Your task to perform on an android device: Open the stopwatch Image 0: 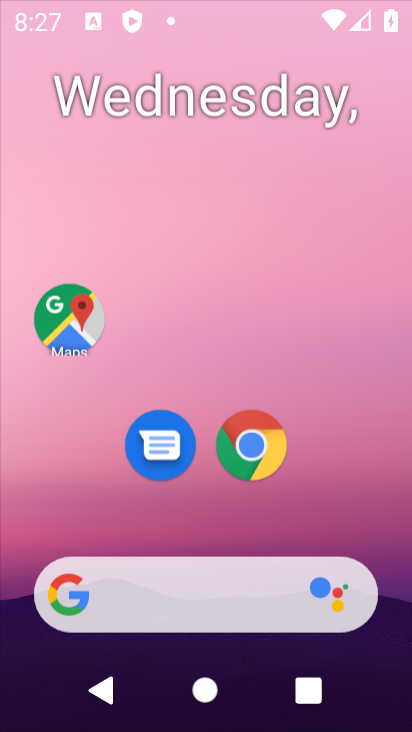
Step 0: drag from (333, 323) to (323, 2)
Your task to perform on an android device: Open the stopwatch Image 1: 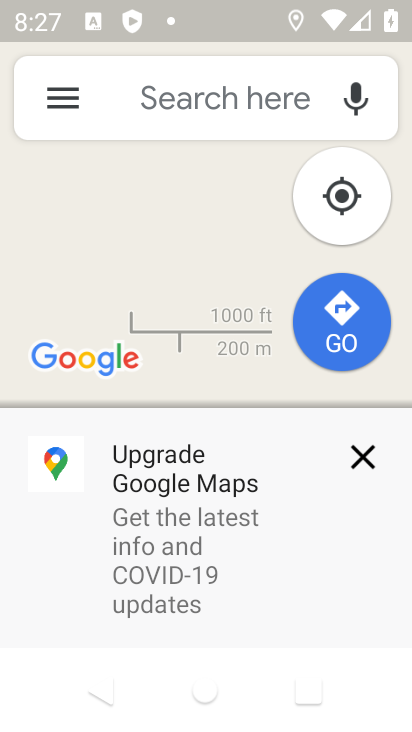
Step 1: press home button
Your task to perform on an android device: Open the stopwatch Image 2: 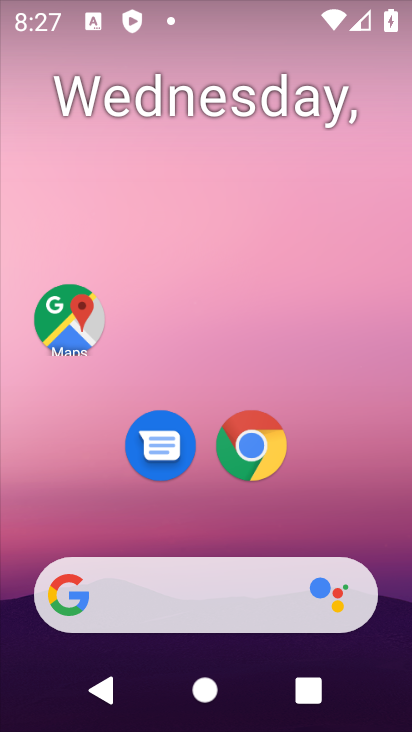
Step 2: drag from (352, 466) to (344, 42)
Your task to perform on an android device: Open the stopwatch Image 3: 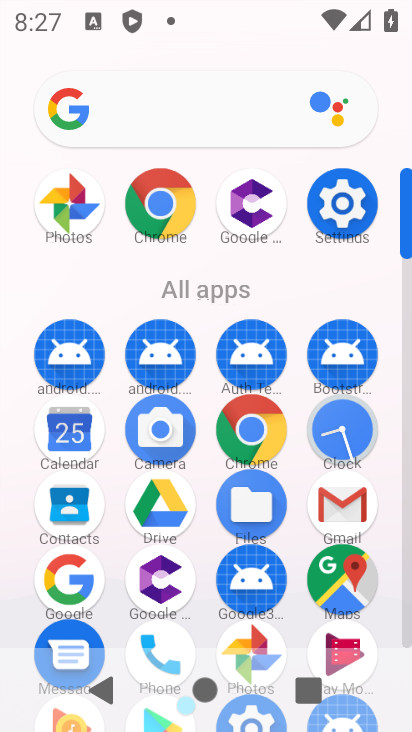
Step 3: click (336, 466)
Your task to perform on an android device: Open the stopwatch Image 4: 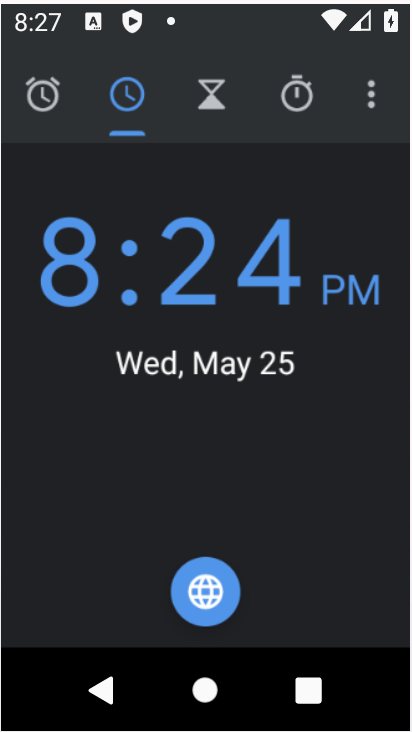
Step 4: click (334, 447)
Your task to perform on an android device: Open the stopwatch Image 5: 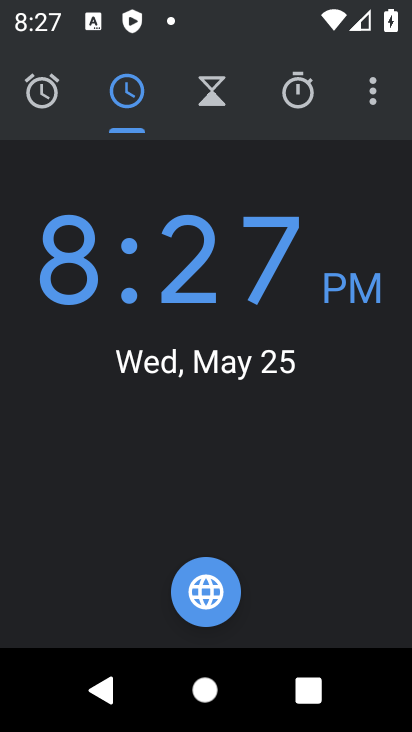
Step 5: click (286, 88)
Your task to perform on an android device: Open the stopwatch Image 6: 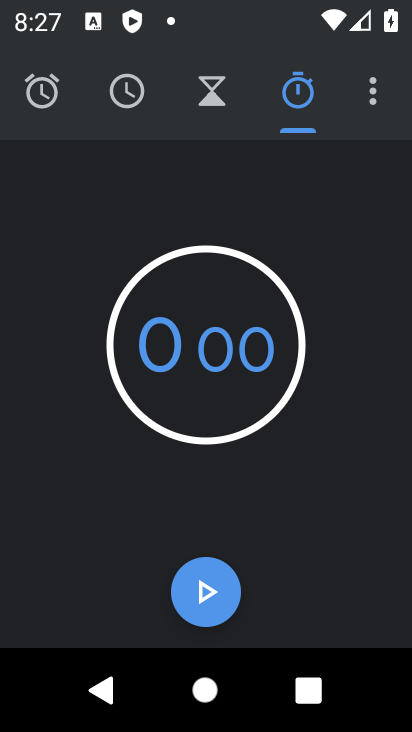
Step 6: task complete